Your task to perform on an android device: Open Chrome and go to the settings page Image 0: 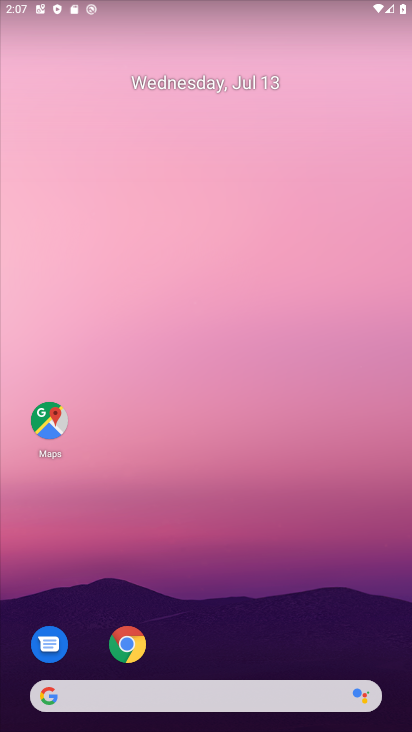
Step 0: drag from (351, 607) to (262, 97)
Your task to perform on an android device: Open Chrome and go to the settings page Image 1: 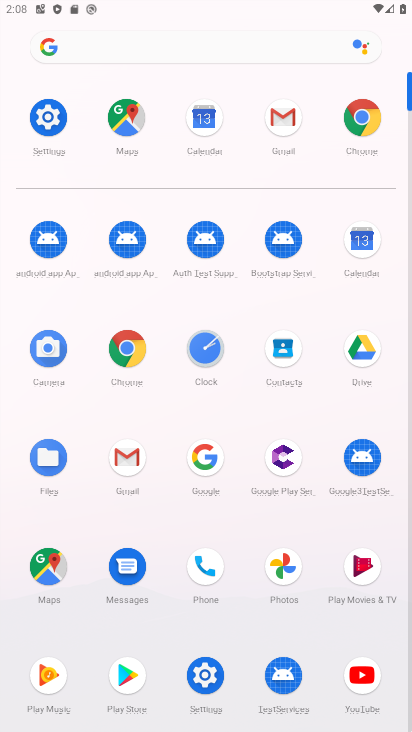
Step 1: click (363, 119)
Your task to perform on an android device: Open Chrome and go to the settings page Image 2: 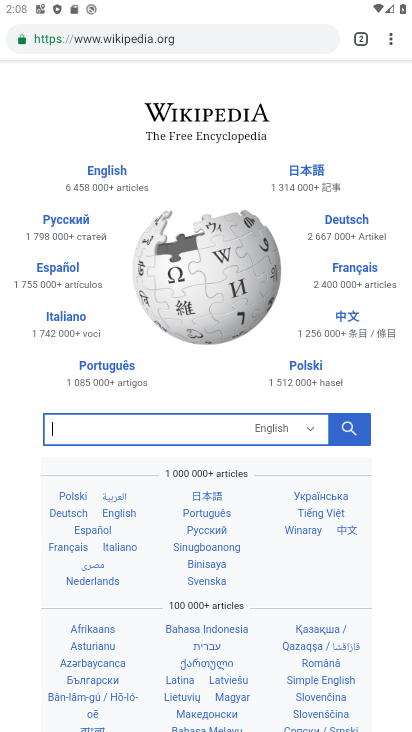
Step 2: task complete